Your task to perform on an android device: Open the contacts app Image 0: 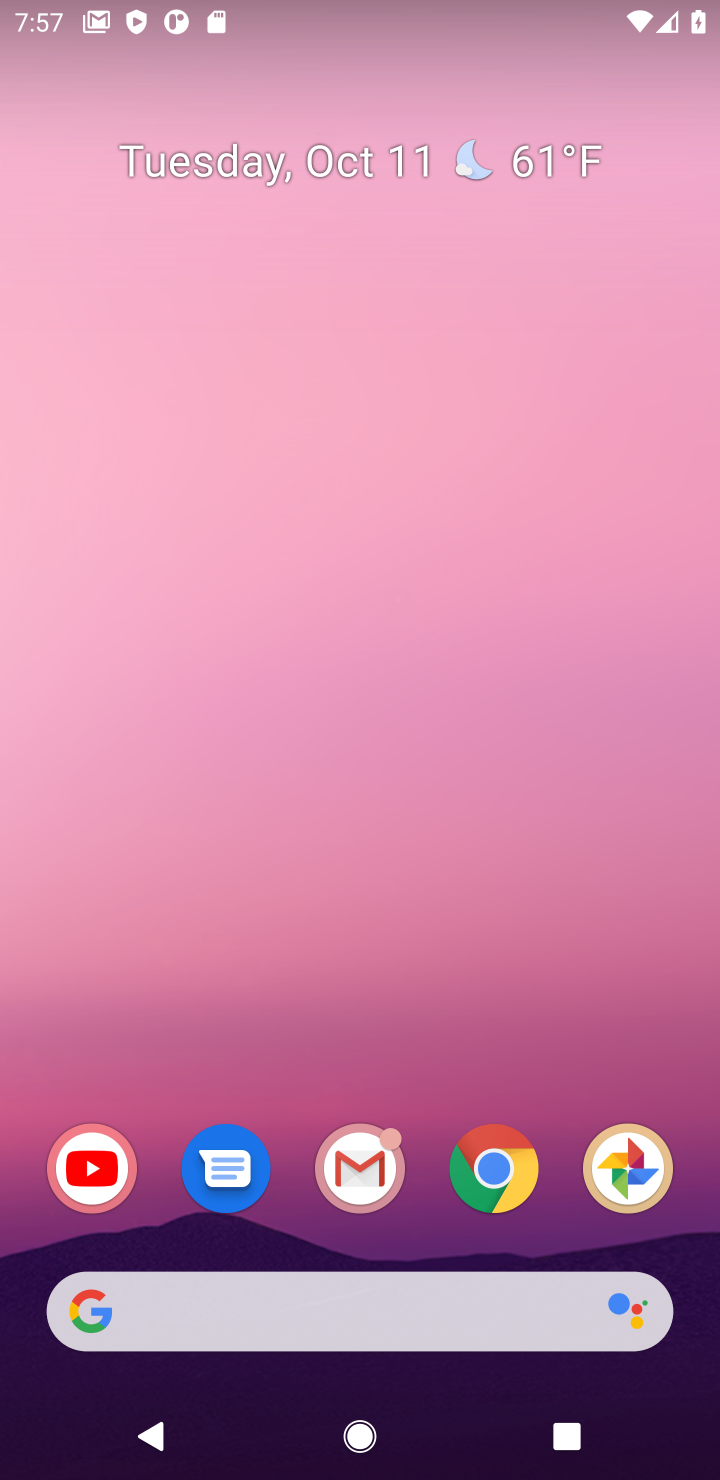
Step 0: drag from (387, 1063) to (319, 51)
Your task to perform on an android device: Open the contacts app Image 1: 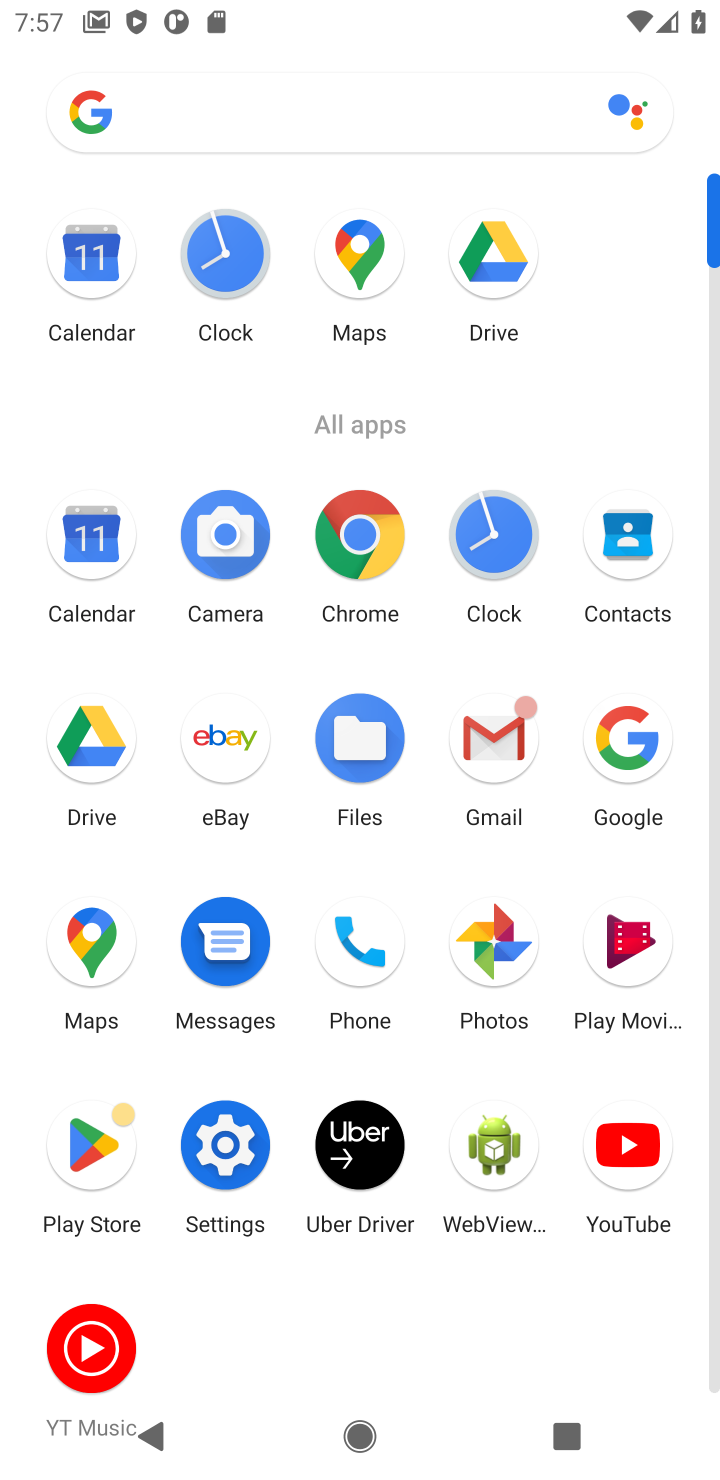
Step 1: click (621, 554)
Your task to perform on an android device: Open the contacts app Image 2: 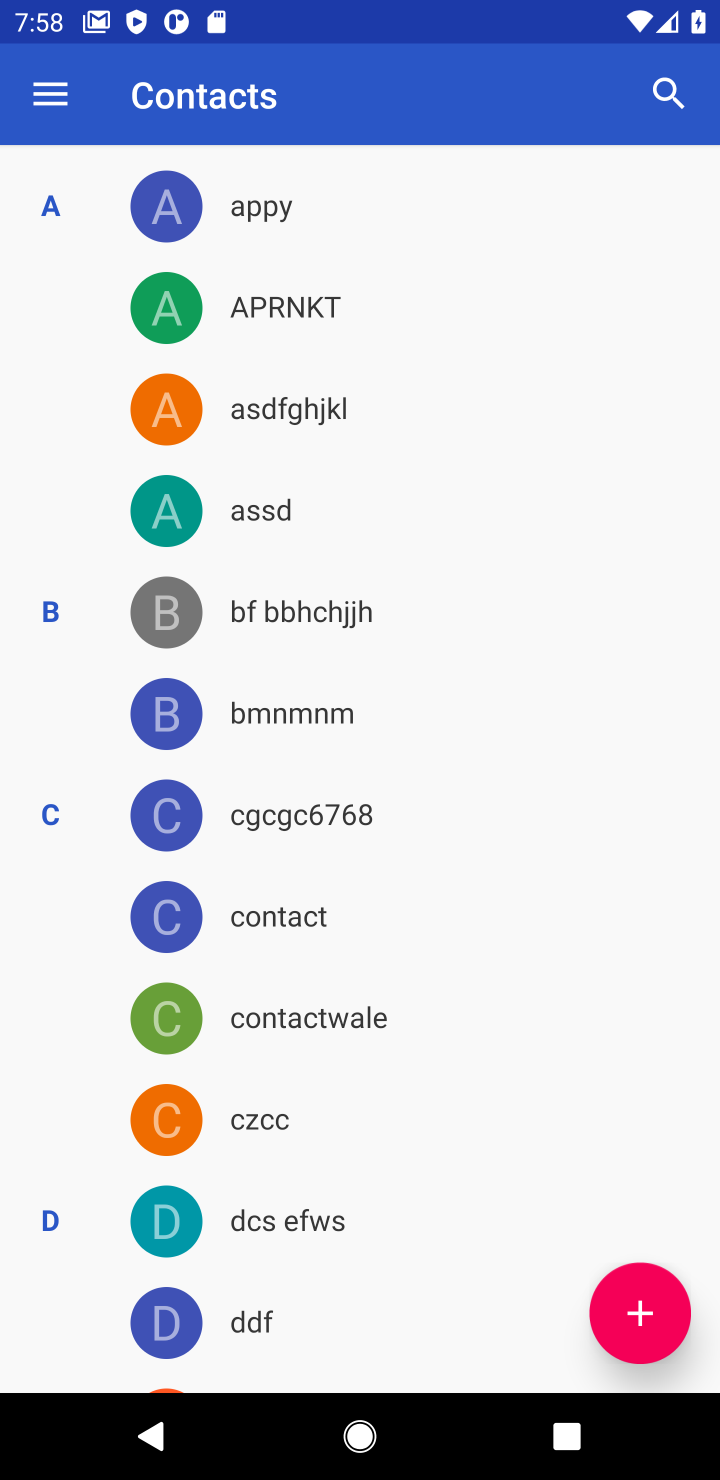
Step 2: task complete